Your task to perform on an android device: check data usage Image 0: 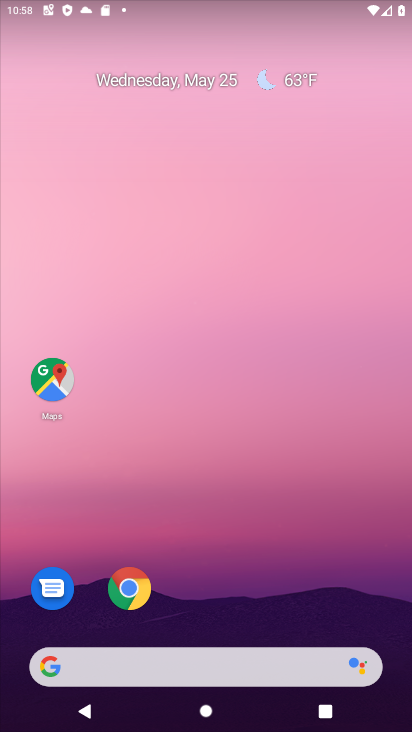
Step 0: drag from (338, 9) to (345, 647)
Your task to perform on an android device: check data usage Image 1: 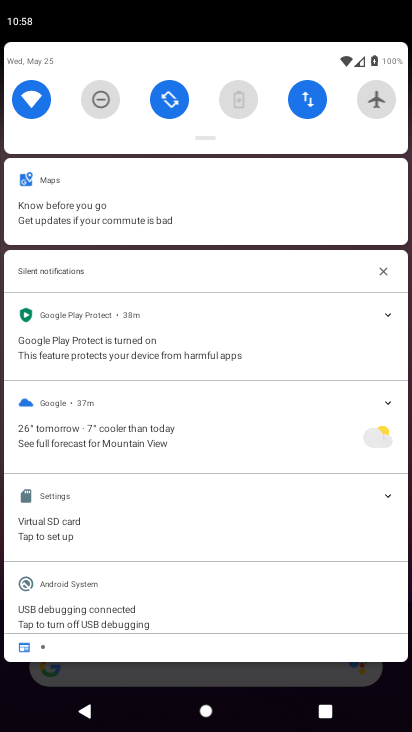
Step 1: click (302, 101)
Your task to perform on an android device: check data usage Image 2: 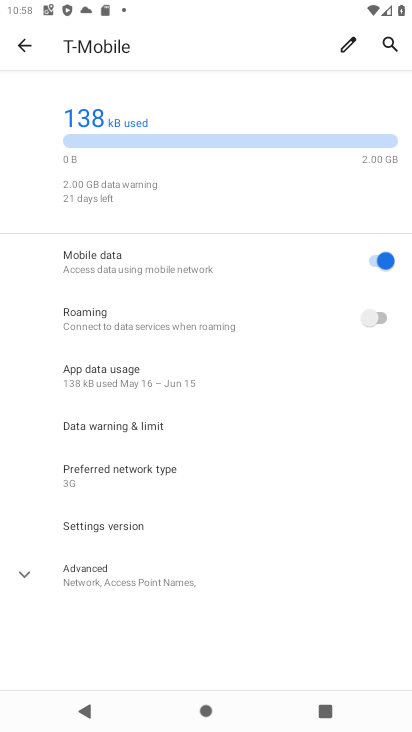
Step 2: task complete